Your task to perform on an android device: check google app version Image 0: 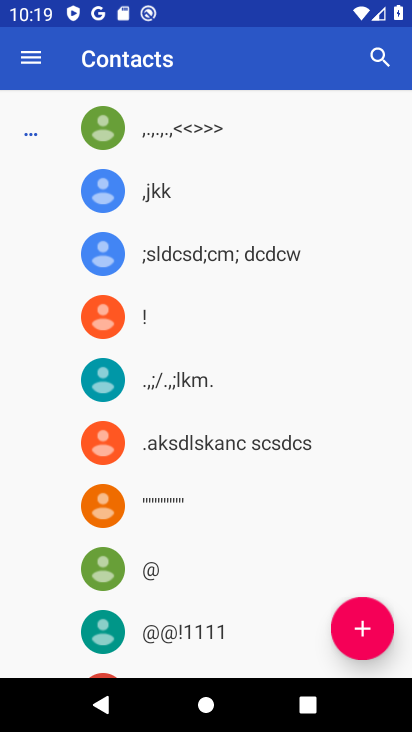
Step 0: press back button
Your task to perform on an android device: check google app version Image 1: 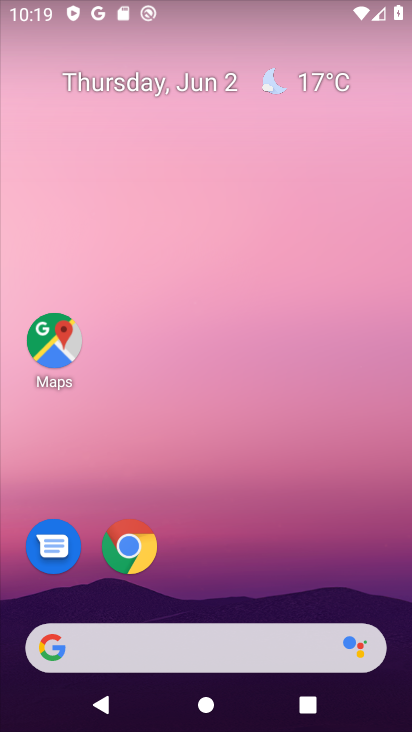
Step 1: drag from (269, 578) to (247, 4)
Your task to perform on an android device: check google app version Image 2: 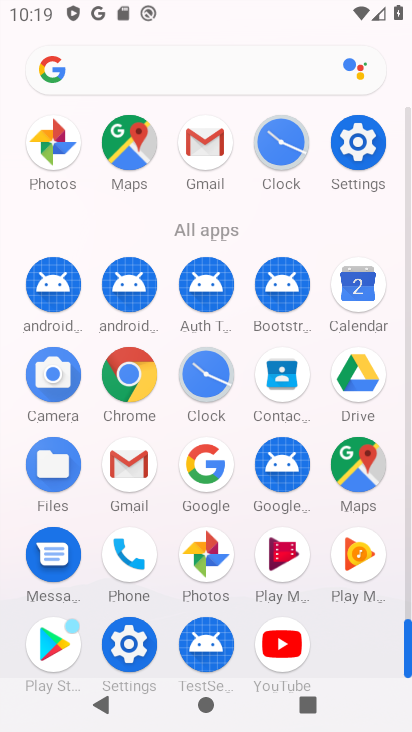
Step 2: click (202, 458)
Your task to perform on an android device: check google app version Image 3: 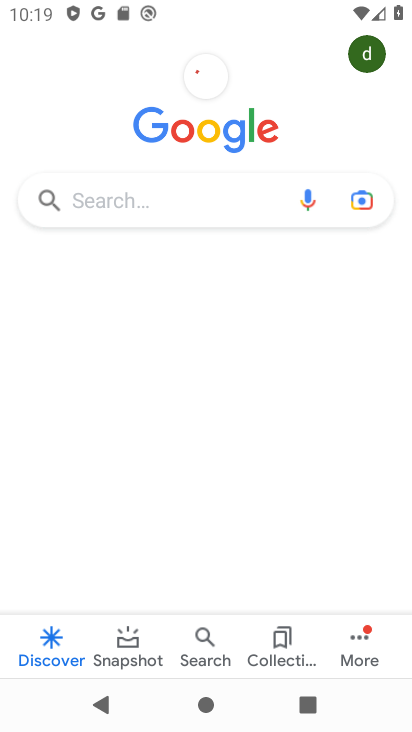
Step 3: click (358, 637)
Your task to perform on an android device: check google app version Image 4: 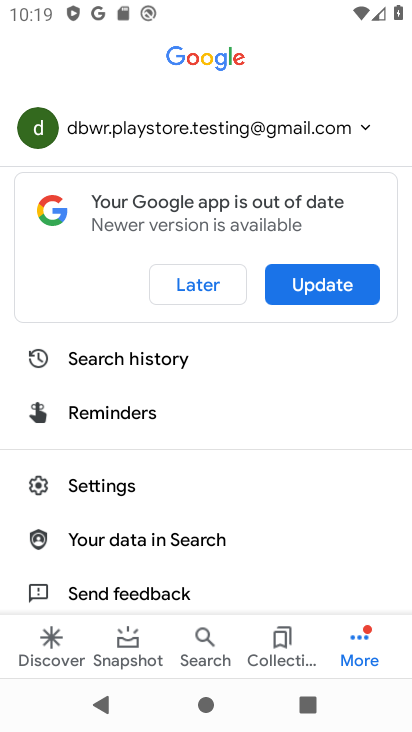
Step 4: click (109, 484)
Your task to perform on an android device: check google app version Image 5: 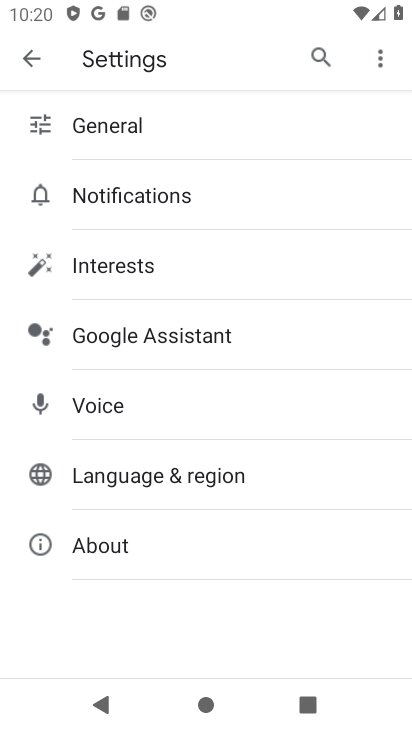
Step 5: click (142, 537)
Your task to perform on an android device: check google app version Image 6: 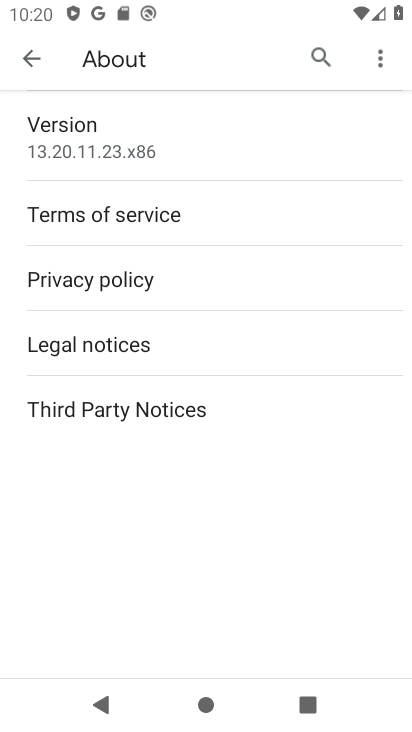
Step 6: task complete